Your task to perform on an android device: move an email to a new category in the gmail app Image 0: 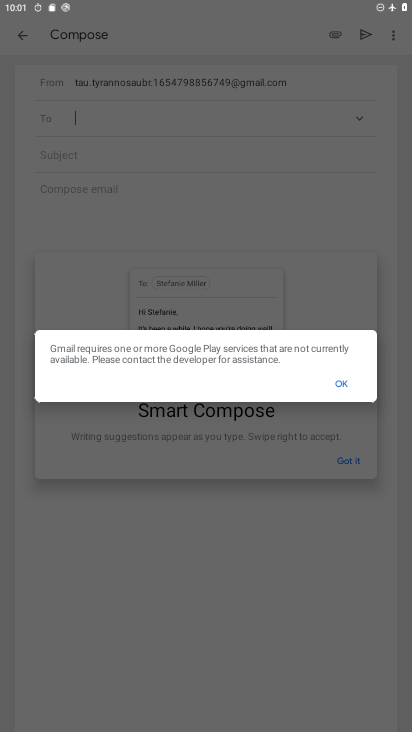
Step 0: press home button
Your task to perform on an android device: move an email to a new category in the gmail app Image 1: 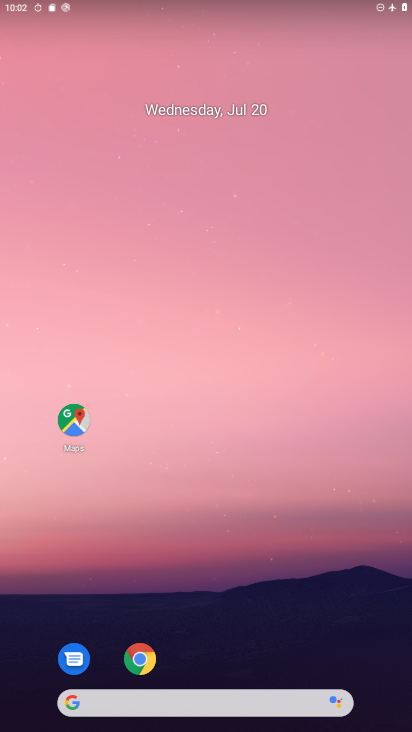
Step 1: drag from (283, 658) to (209, 148)
Your task to perform on an android device: move an email to a new category in the gmail app Image 2: 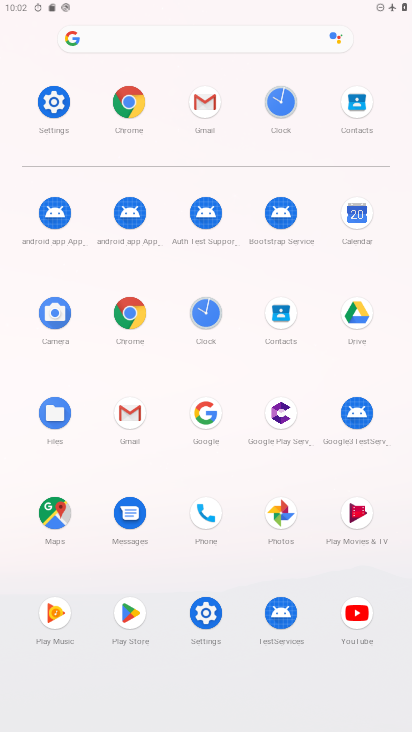
Step 2: click (210, 91)
Your task to perform on an android device: move an email to a new category in the gmail app Image 3: 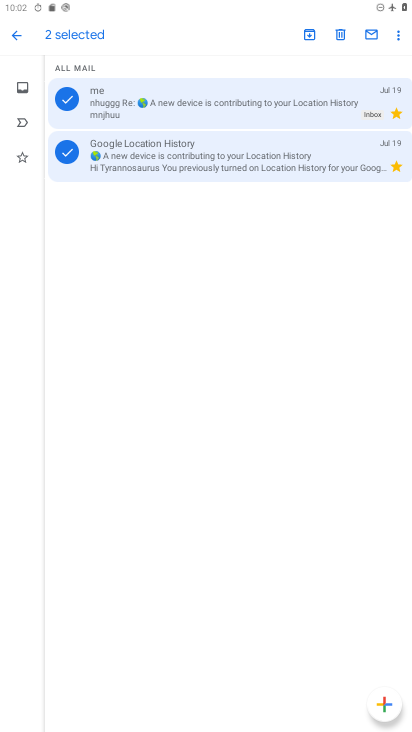
Step 3: click (281, 105)
Your task to perform on an android device: move an email to a new category in the gmail app Image 4: 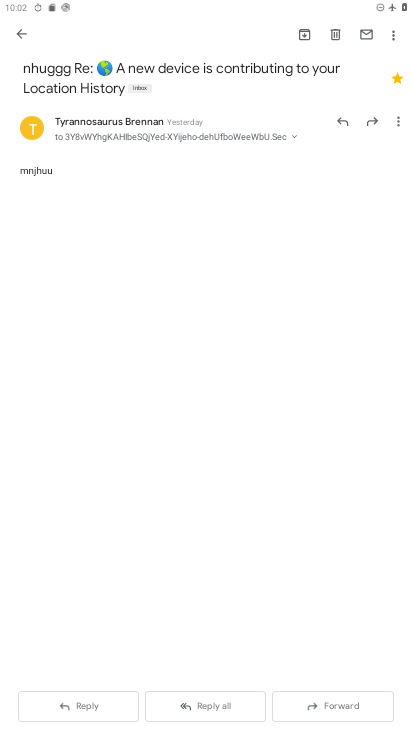
Step 4: click (394, 37)
Your task to perform on an android device: move an email to a new category in the gmail app Image 5: 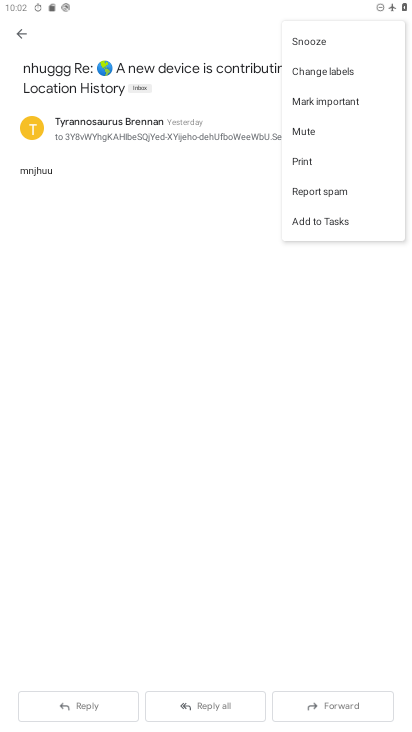
Step 5: click (323, 73)
Your task to perform on an android device: move an email to a new category in the gmail app Image 6: 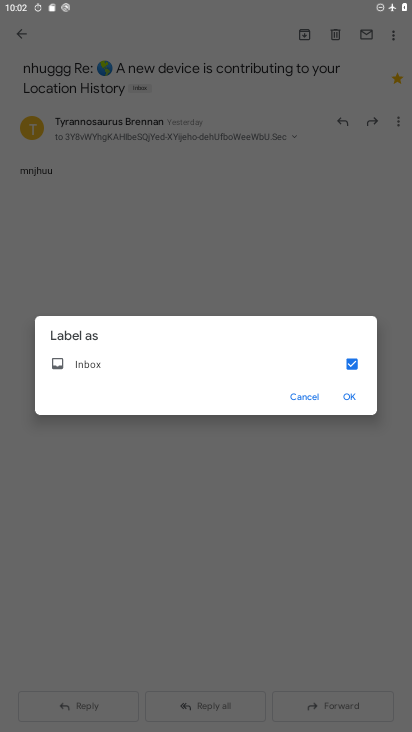
Step 6: click (352, 393)
Your task to perform on an android device: move an email to a new category in the gmail app Image 7: 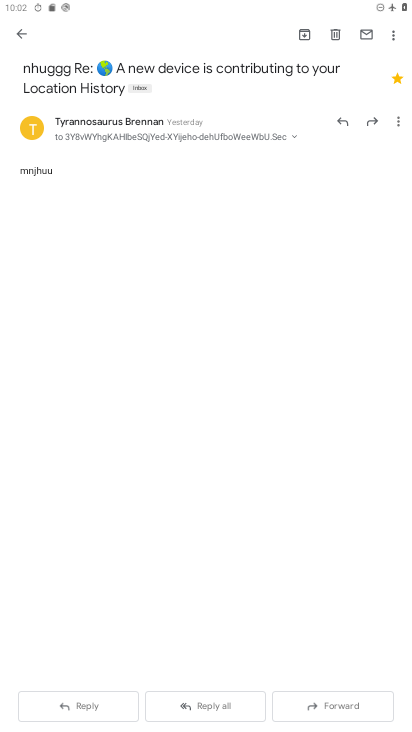
Step 7: task complete